Your task to perform on an android device: Show me recent news Image 0: 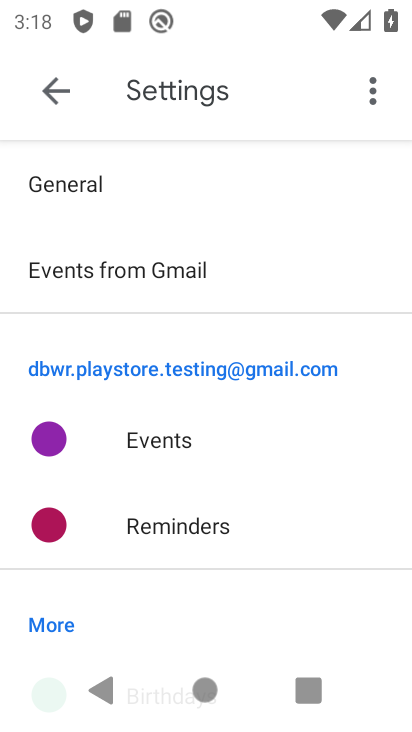
Step 0: press home button
Your task to perform on an android device: Show me recent news Image 1: 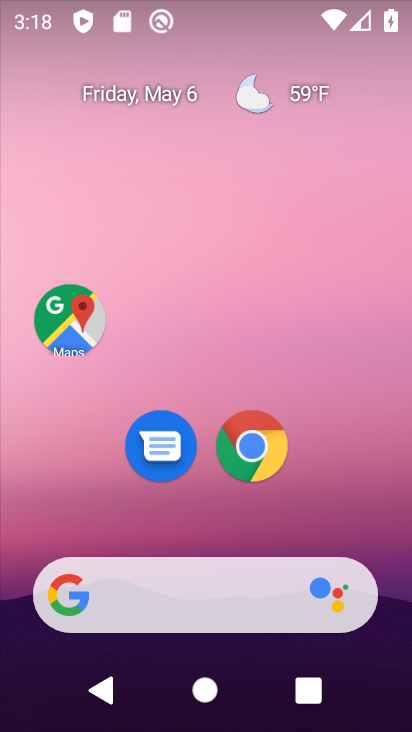
Step 1: click (268, 460)
Your task to perform on an android device: Show me recent news Image 2: 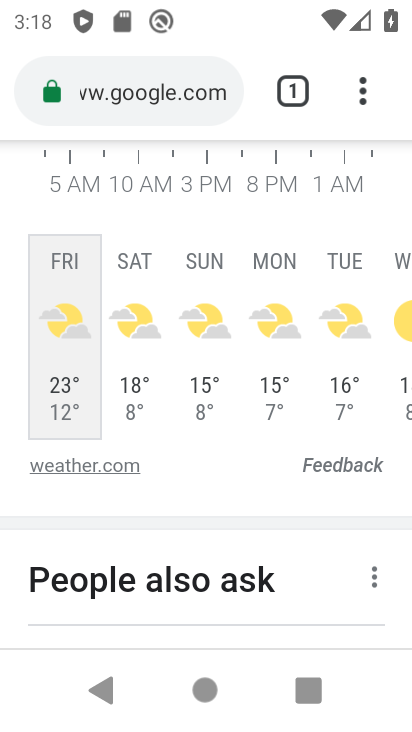
Step 2: click (159, 97)
Your task to perform on an android device: Show me recent news Image 3: 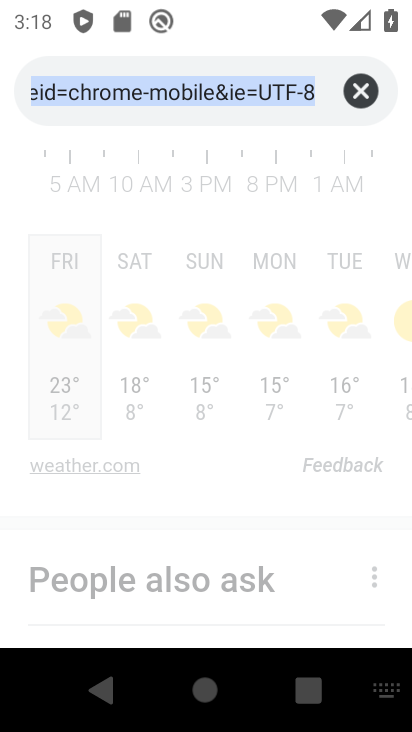
Step 3: type "recent news"
Your task to perform on an android device: Show me recent news Image 4: 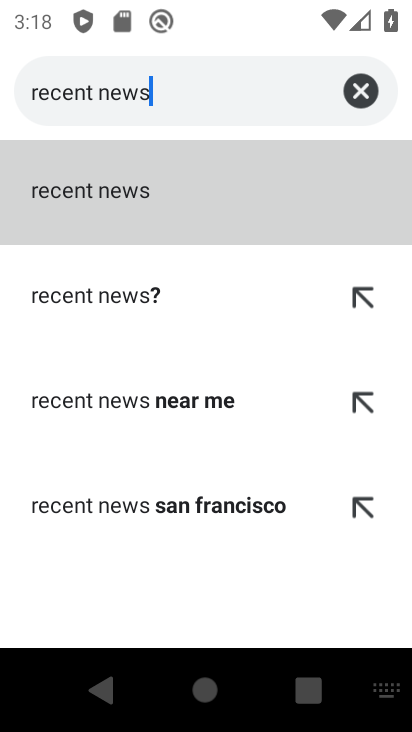
Step 4: click (76, 209)
Your task to perform on an android device: Show me recent news Image 5: 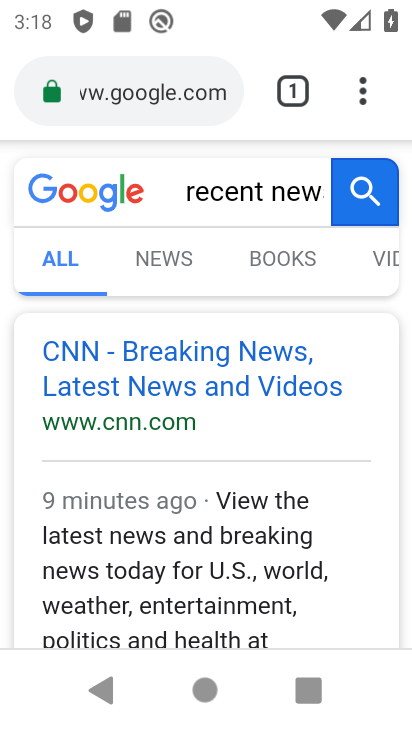
Step 5: click (129, 378)
Your task to perform on an android device: Show me recent news Image 6: 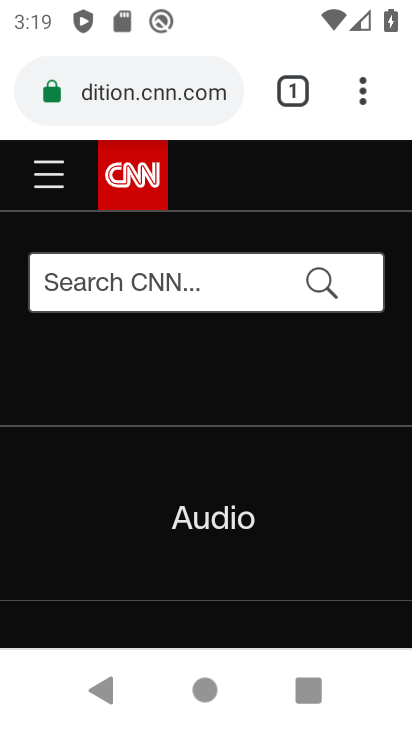
Step 6: task complete